Your task to perform on an android device: Go to calendar. Show me events next week Image 0: 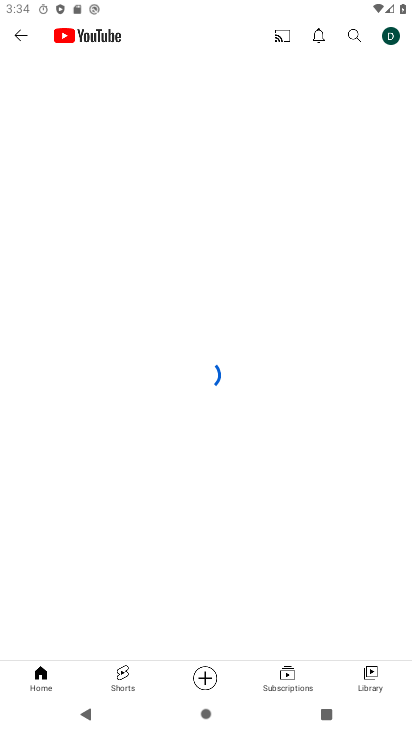
Step 0: press home button
Your task to perform on an android device: Go to calendar. Show me events next week Image 1: 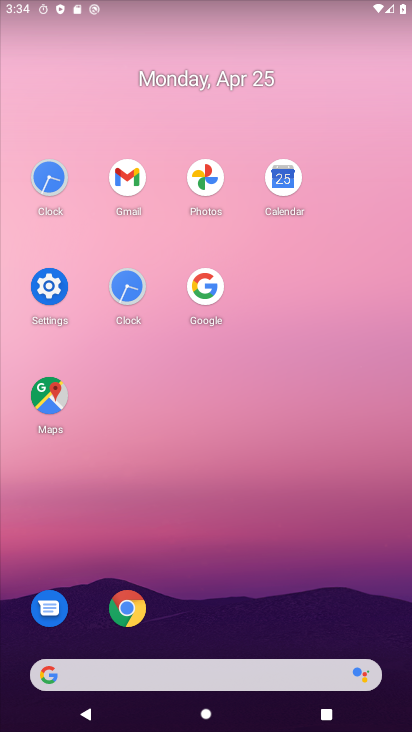
Step 1: click (279, 179)
Your task to perform on an android device: Go to calendar. Show me events next week Image 2: 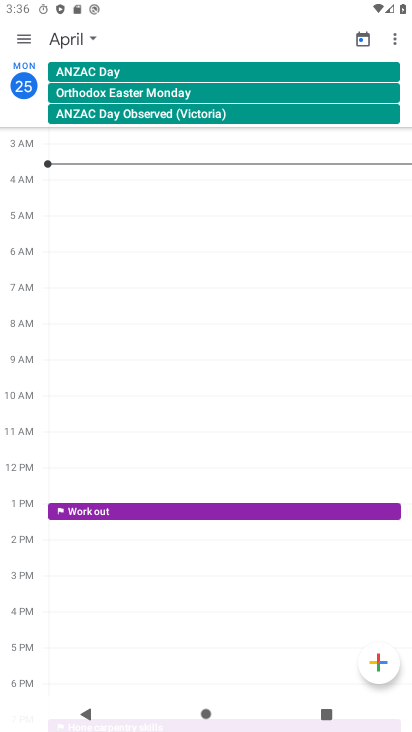
Step 2: click (23, 36)
Your task to perform on an android device: Go to calendar. Show me events next week Image 3: 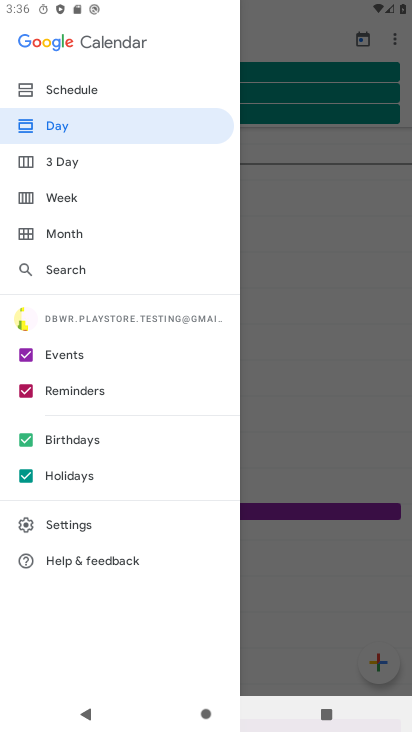
Step 3: click (83, 199)
Your task to perform on an android device: Go to calendar. Show me events next week Image 4: 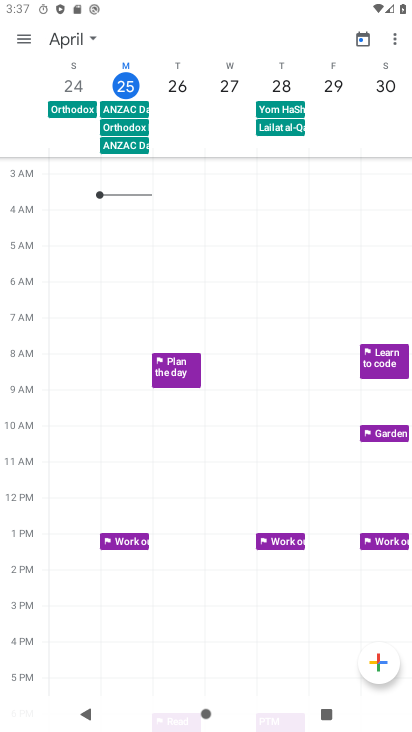
Step 4: task complete